Your task to perform on an android device: turn off location history Image 0: 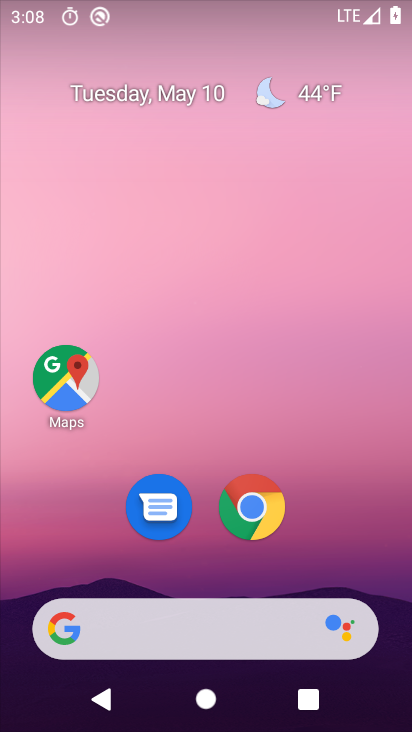
Step 0: drag from (227, 599) to (212, 318)
Your task to perform on an android device: turn off location history Image 1: 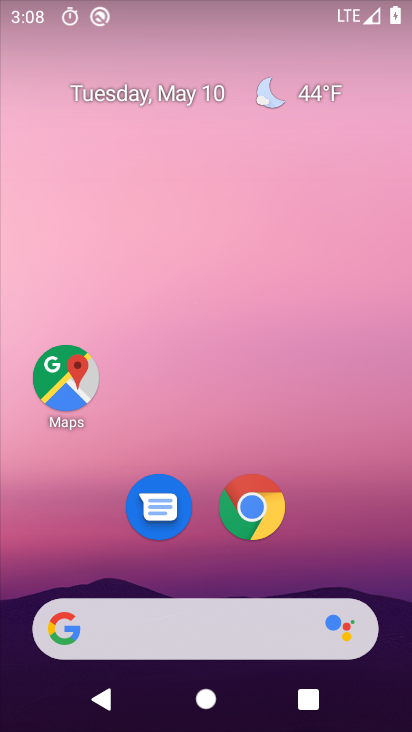
Step 1: drag from (194, 581) to (149, 233)
Your task to perform on an android device: turn off location history Image 2: 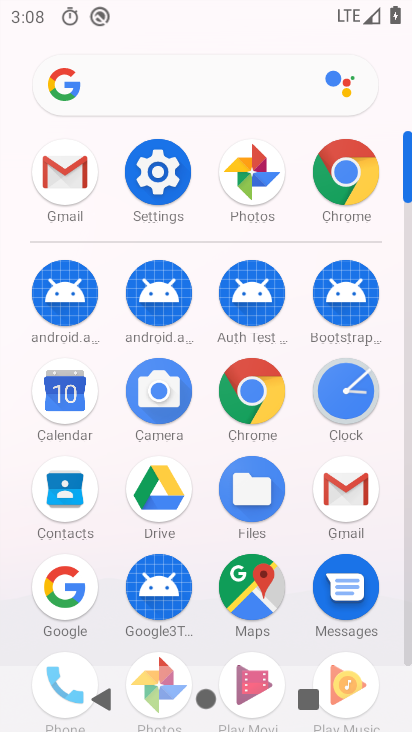
Step 2: click (147, 180)
Your task to perform on an android device: turn off location history Image 3: 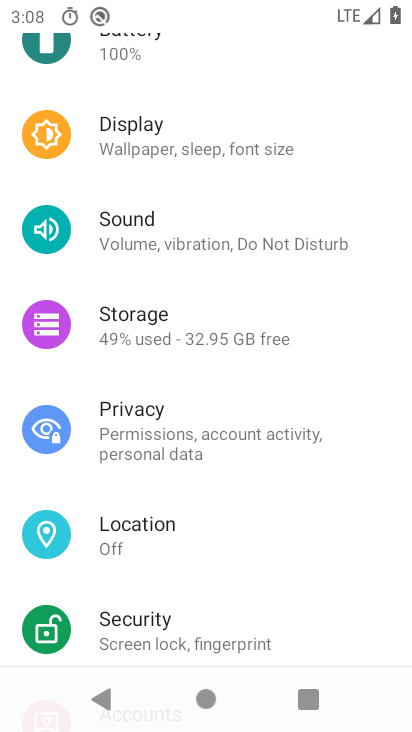
Step 3: click (139, 518)
Your task to perform on an android device: turn off location history Image 4: 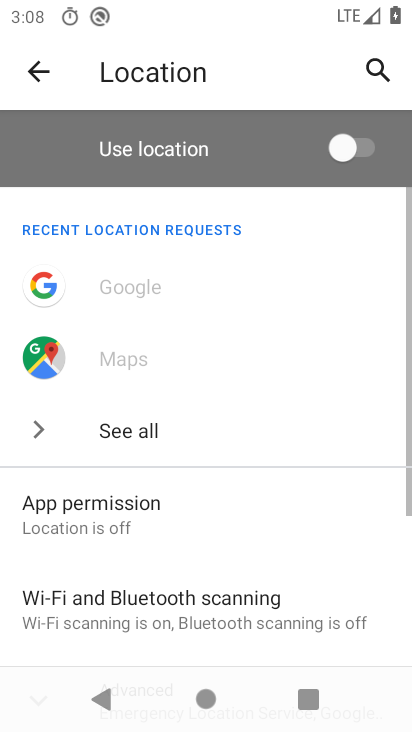
Step 4: drag from (174, 606) to (141, 387)
Your task to perform on an android device: turn off location history Image 5: 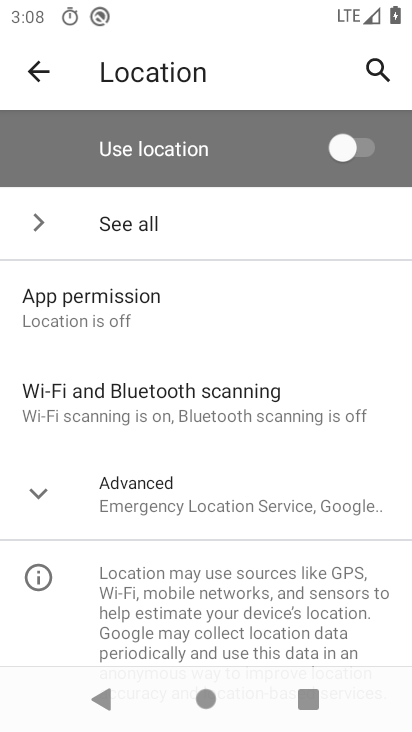
Step 5: click (162, 501)
Your task to perform on an android device: turn off location history Image 6: 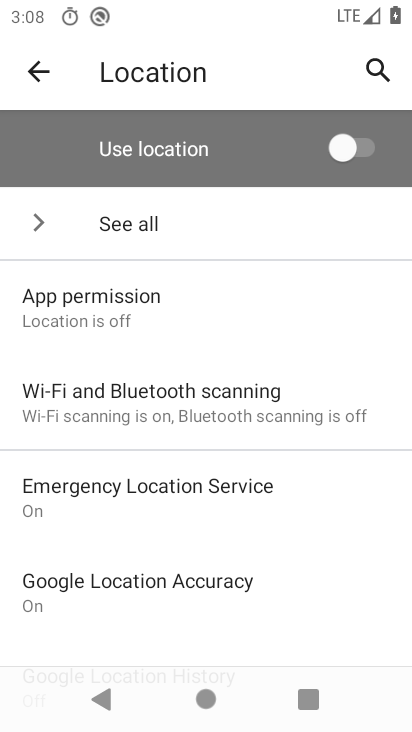
Step 6: drag from (151, 611) to (137, 390)
Your task to perform on an android device: turn off location history Image 7: 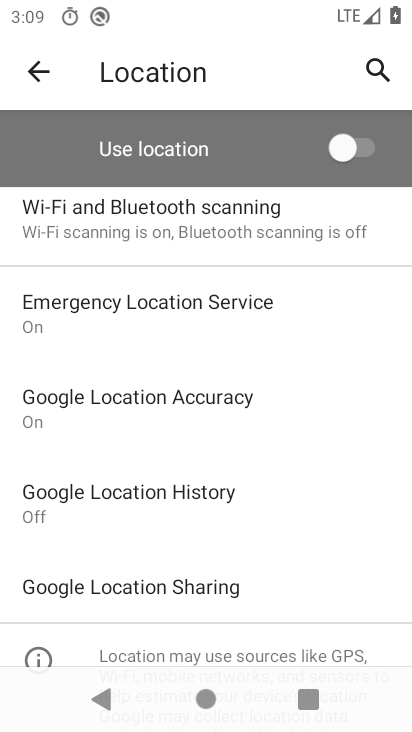
Step 7: click (166, 497)
Your task to perform on an android device: turn off location history Image 8: 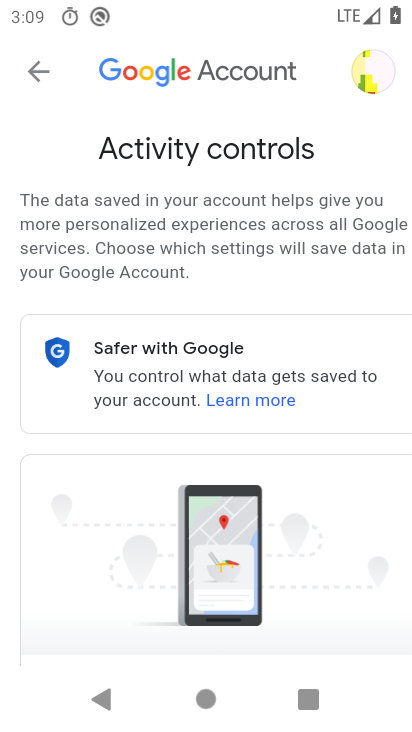
Step 8: drag from (201, 604) to (176, 261)
Your task to perform on an android device: turn off location history Image 9: 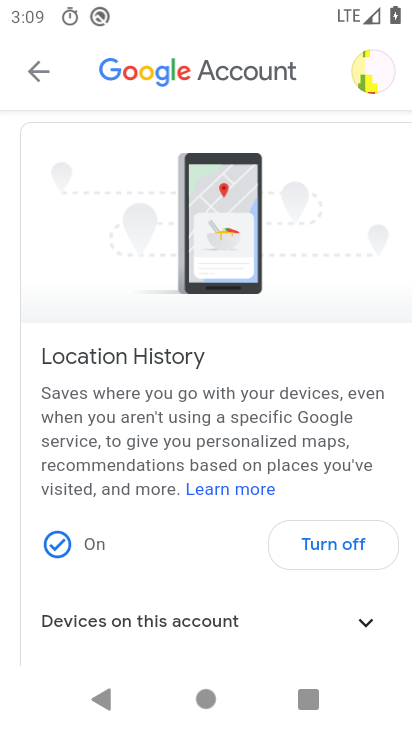
Step 9: click (314, 552)
Your task to perform on an android device: turn off location history Image 10: 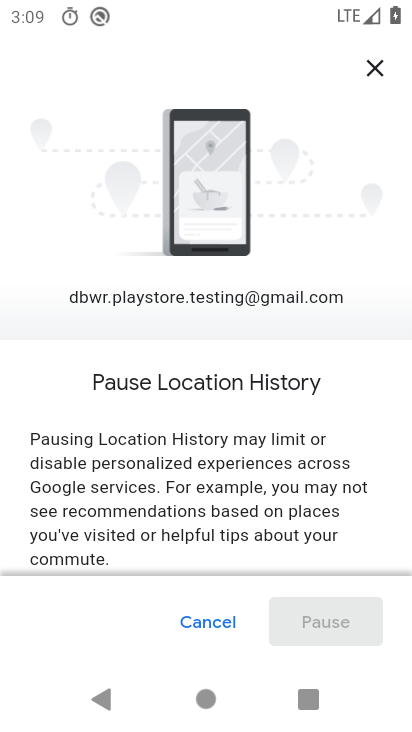
Step 10: click (341, 623)
Your task to perform on an android device: turn off location history Image 11: 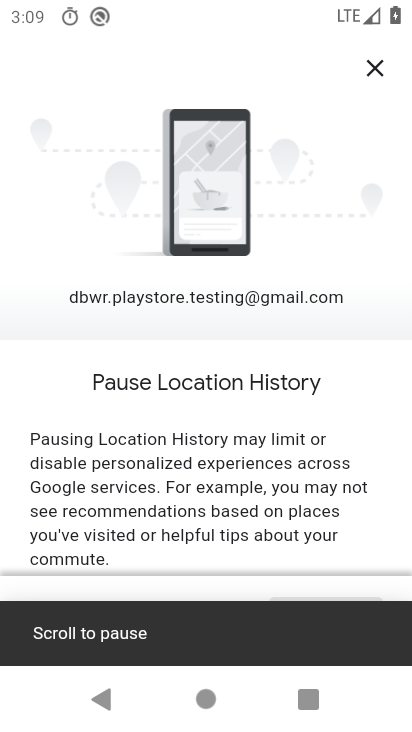
Step 11: drag from (309, 544) to (296, 247)
Your task to perform on an android device: turn off location history Image 12: 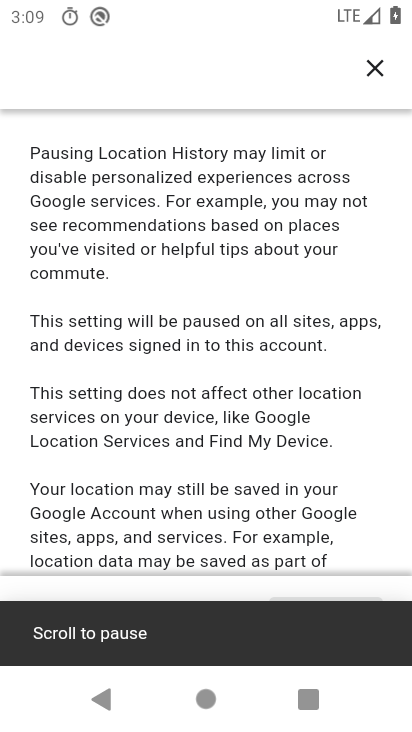
Step 12: drag from (295, 544) to (282, 242)
Your task to perform on an android device: turn off location history Image 13: 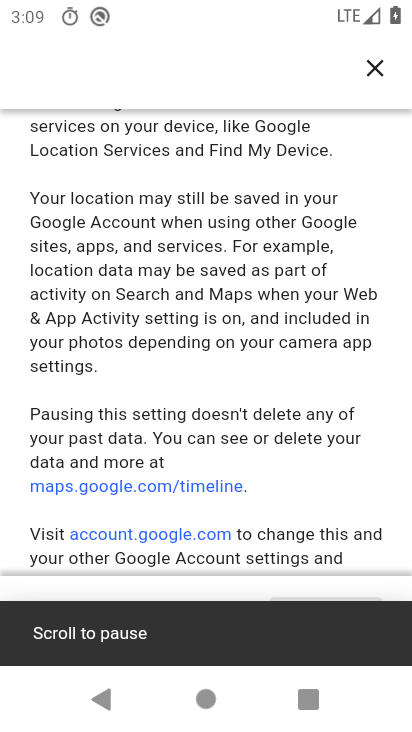
Step 13: drag from (276, 548) to (277, 291)
Your task to perform on an android device: turn off location history Image 14: 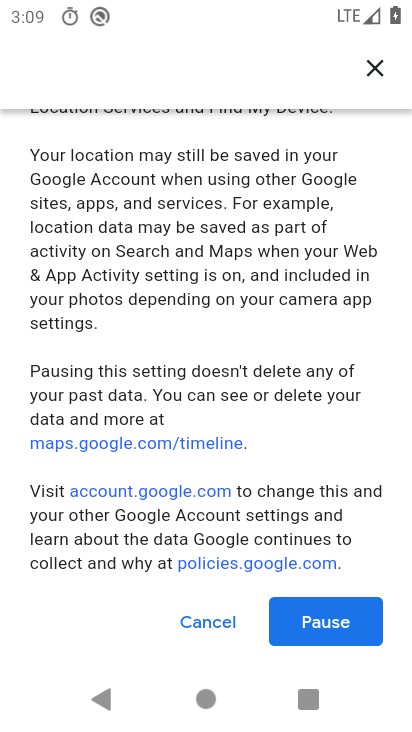
Step 14: click (293, 618)
Your task to perform on an android device: turn off location history Image 15: 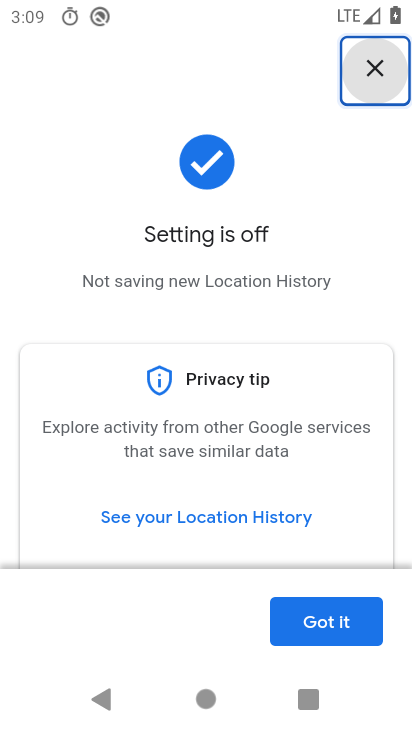
Step 15: click (320, 634)
Your task to perform on an android device: turn off location history Image 16: 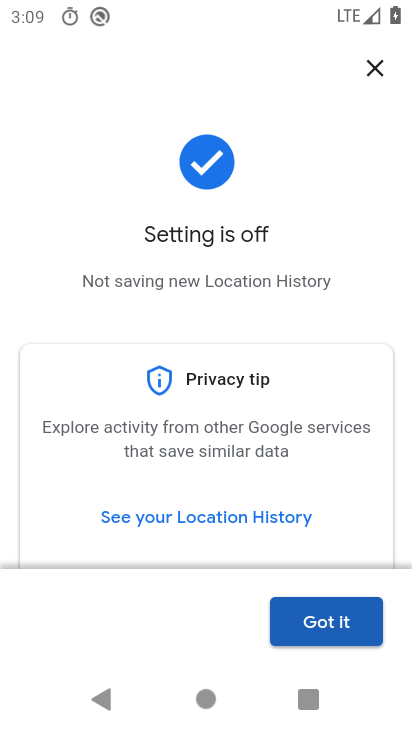
Step 16: click (348, 613)
Your task to perform on an android device: turn off location history Image 17: 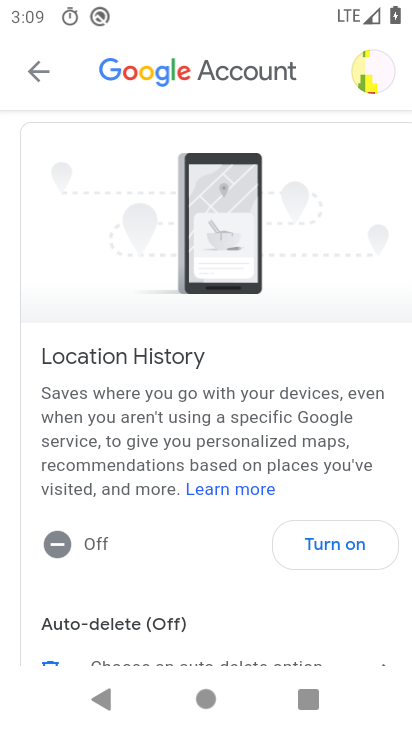
Step 17: task complete